Your task to perform on an android device: turn on location history Image 0: 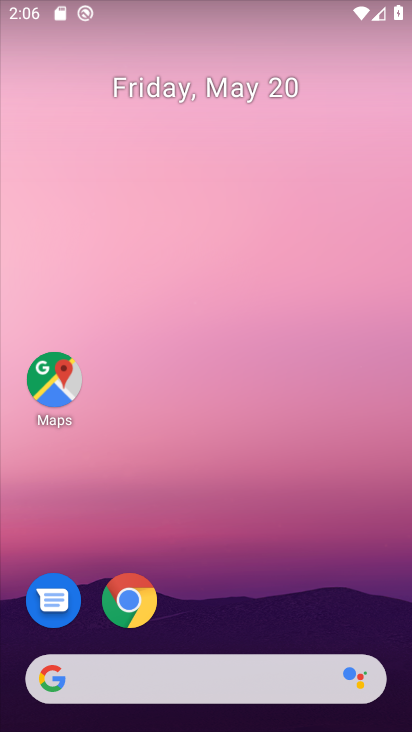
Step 0: drag from (221, 185) to (182, 6)
Your task to perform on an android device: turn on location history Image 1: 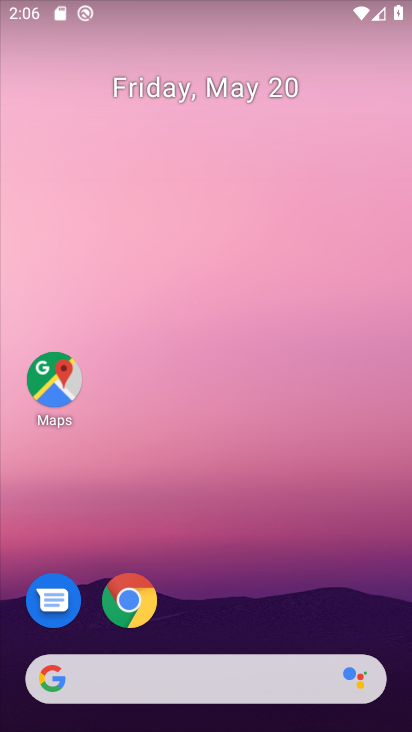
Step 1: drag from (212, 384) to (197, 10)
Your task to perform on an android device: turn on location history Image 2: 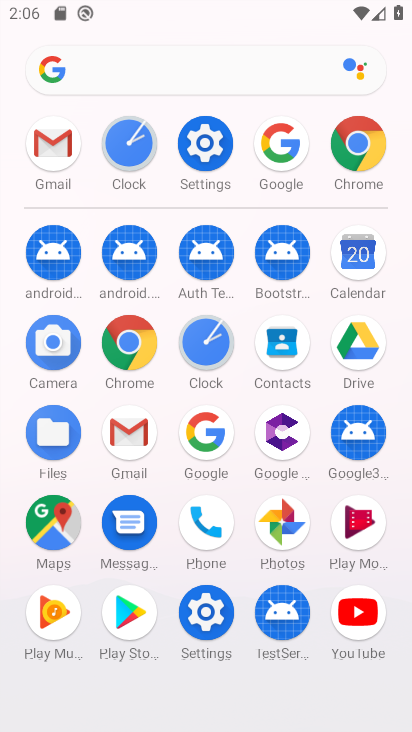
Step 2: click (201, 162)
Your task to perform on an android device: turn on location history Image 3: 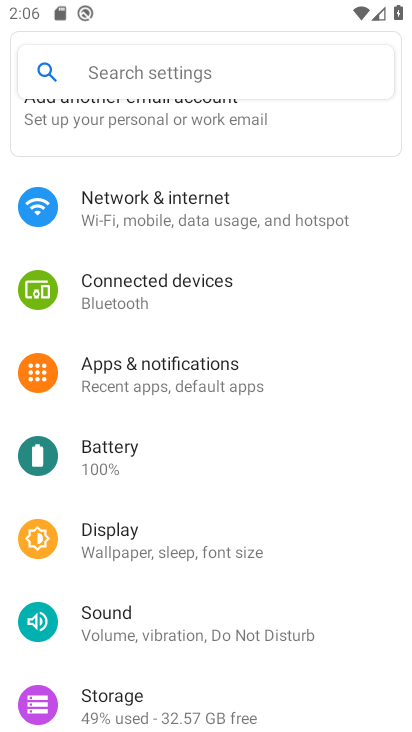
Step 3: drag from (247, 620) to (217, 209)
Your task to perform on an android device: turn on location history Image 4: 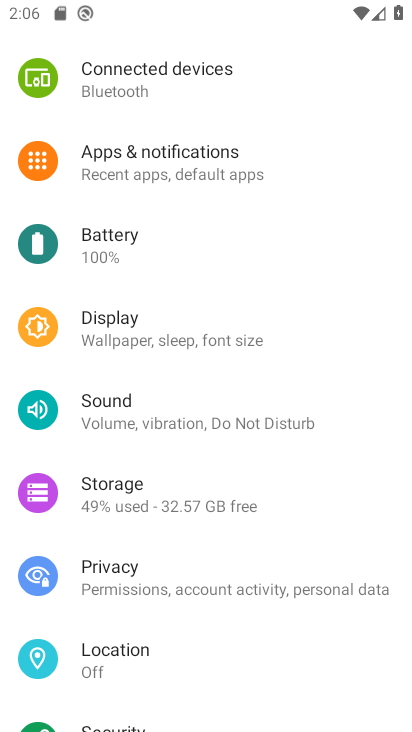
Step 4: click (146, 657)
Your task to perform on an android device: turn on location history Image 5: 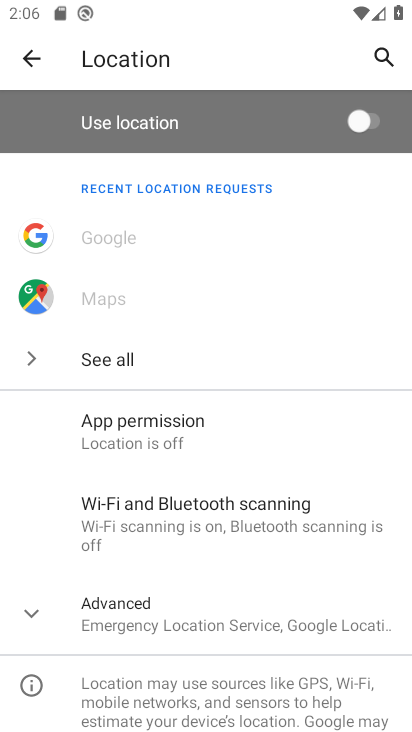
Step 5: click (192, 611)
Your task to perform on an android device: turn on location history Image 6: 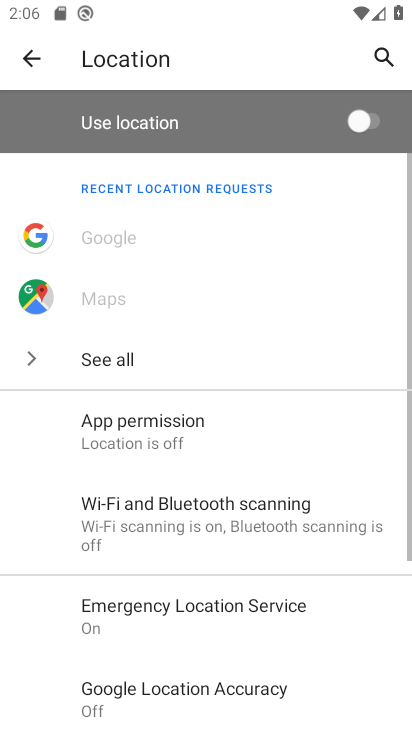
Step 6: drag from (232, 614) to (235, 202)
Your task to perform on an android device: turn on location history Image 7: 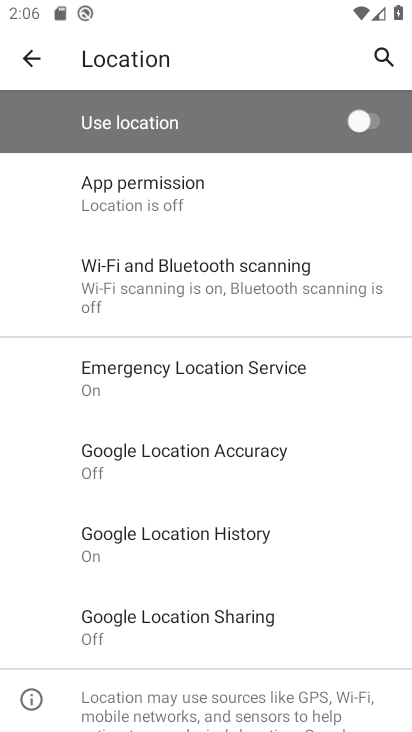
Step 7: click (258, 529)
Your task to perform on an android device: turn on location history Image 8: 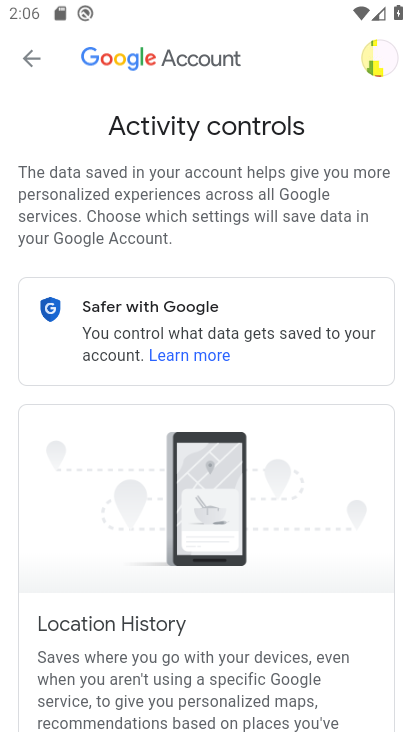
Step 8: drag from (254, 576) to (195, 69)
Your task to perform on an android device: turn on location history Image 9: 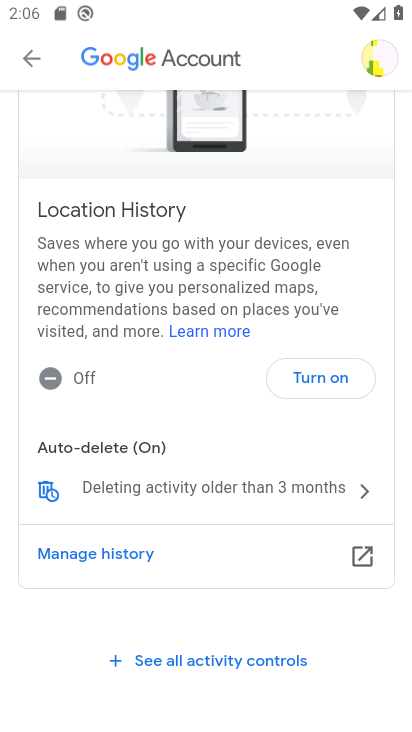
Step 9: click (322, 370)
Your task to perform on an android device: turn on location history Image 10: 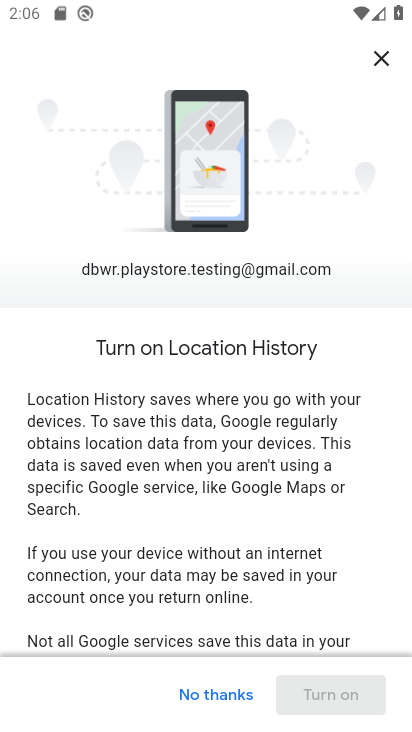
Step 10: drag from (232, 536) to (219, 121)
Your task to perform on an android device: turn on location history Image 11: 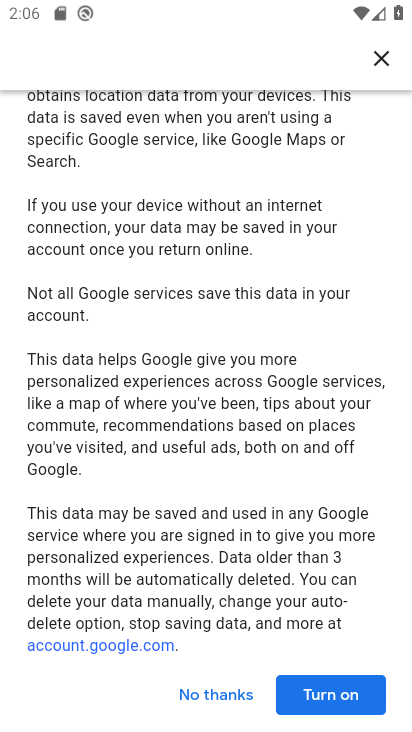
Step 11: click (318, 677)
Your task to perform on an android device: turn on location history Image 12: 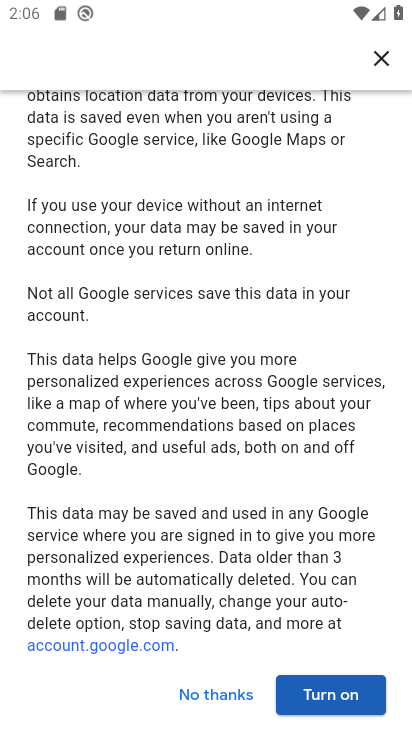
Step 12: click (309, 695)
Your task to perform on an android device: turn on location history Image 13: 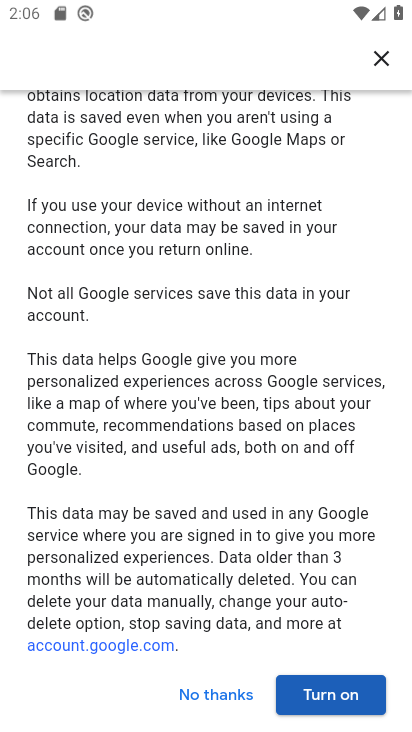
Step 13: drag from (247, 611) to (219, 144)
Your task to perform on an android device: turn on location history Image 14: 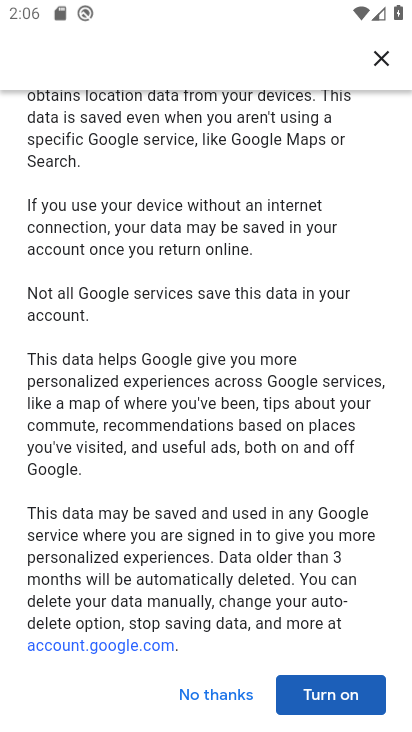
Step 14: click (320, 697)
Your task to perform on an android device: turn on location history Image 15: 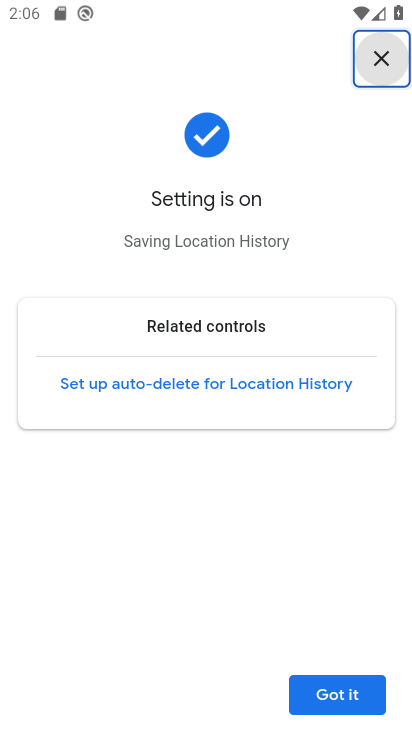
Step 15: click (356, 691)
Your task to perform on an android device: turn on location history Image 16: 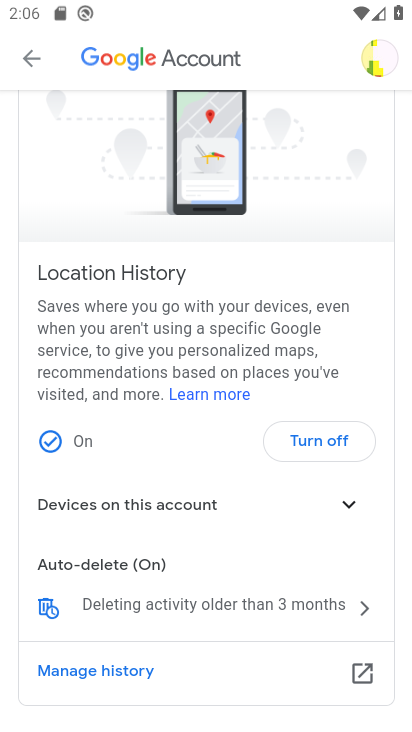
Step 16: task complete